Your task to perform on an android device: Open Google Chrome and click the shortcut for Amazon.com Image 0: 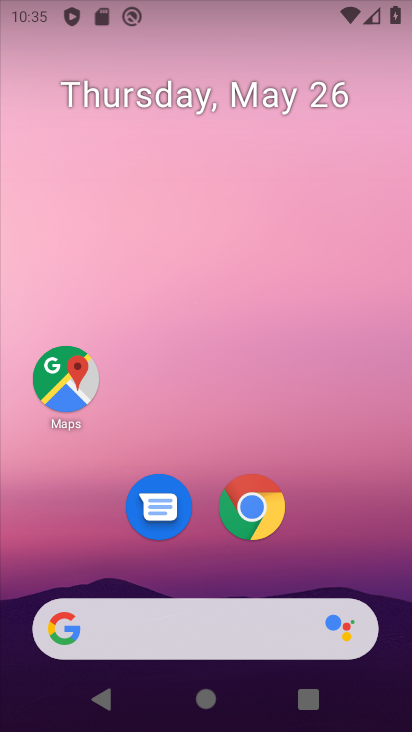
Step 0: click (164, 590)
Your task to perform on an android device: Open Google Chrome and click the shortcut for Amazon.com Image 1: 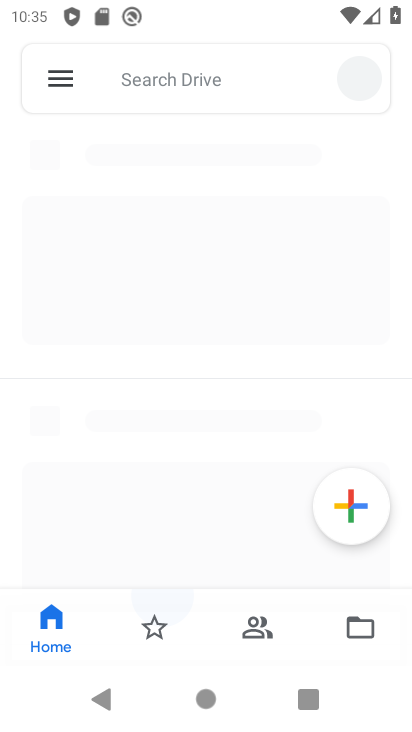
Step 1: click (164, 590)
Your task to perform on an android device: Open Google Chrome and click the shortcut for Amazon.com Image 2: 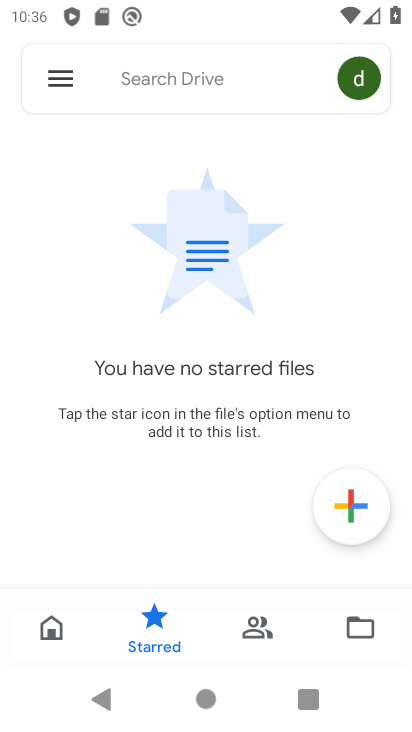
Step 2: press back button
Your task to perform on an android device: Open Google Chrome and click the shortcut for Amazon.com Image 3: 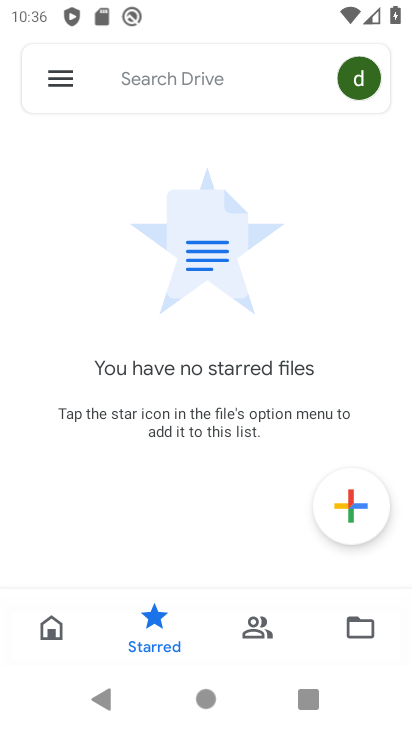
Step 3: press back button
Your task to perform on an android device: Open Google Chrome and click the shortcut for Amazon.com Image 4: 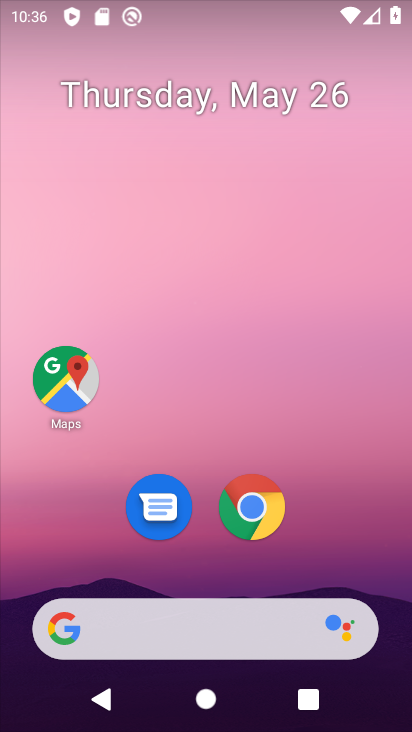
Step 4: drag from (250, 689) to (143, 195)
Your task to perform on an android device: Open Google Chrome and click the shortcut for Amazon.com Image 5: 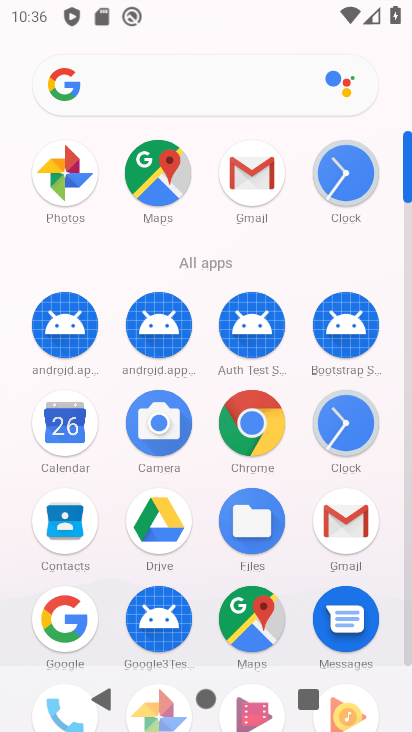
Step 5: click (243, 431)
Your task to perform on an android device: Open Google Chrome and click the shortcut for Amazon.com Image 6: 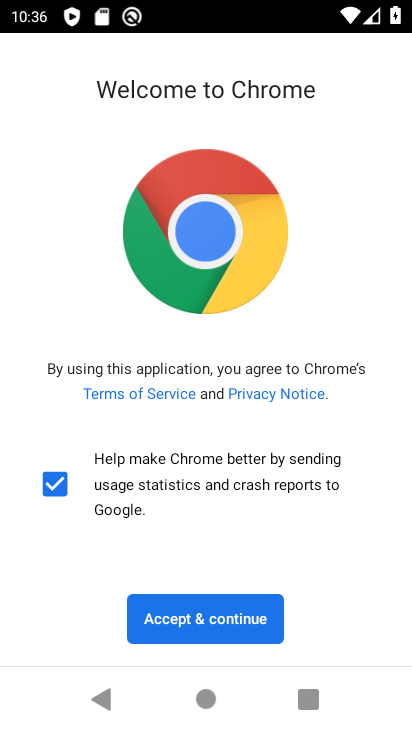
Step 6: click (203, 620)
Your task to perform on an android device: Open Google Chrome and click the shortcut for Amazon.com Image 7: 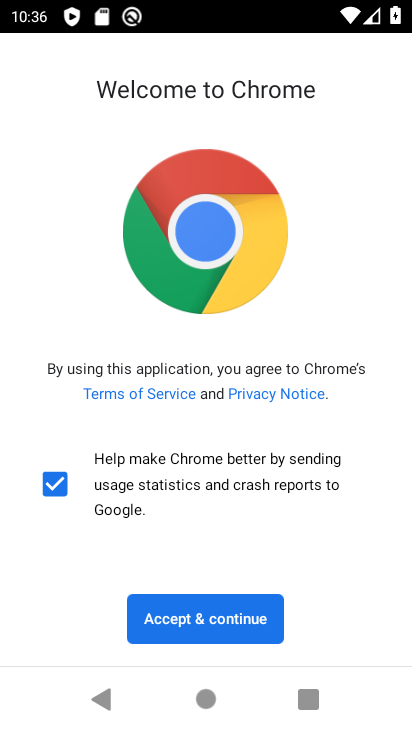
Step 7: click (204, 619)
Your task to perform on an android device: Open Google Chrome and click the shortcut for Amazon.com Image 8: 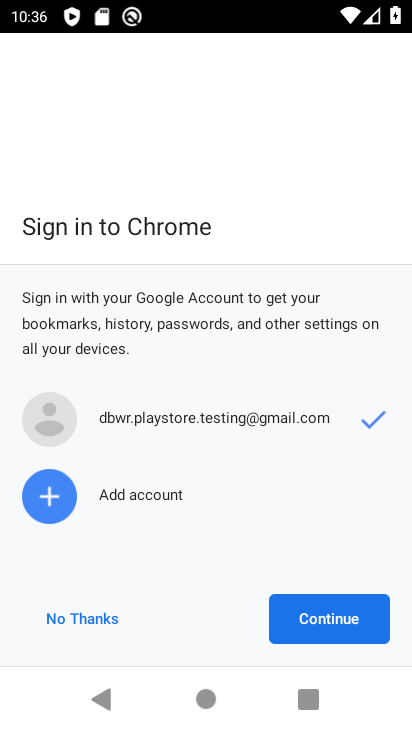
Step 8: click (211, 620)
Your task to perform on an android device: Open Google Chrome and click the shortcut for Amazon.com Image 9: 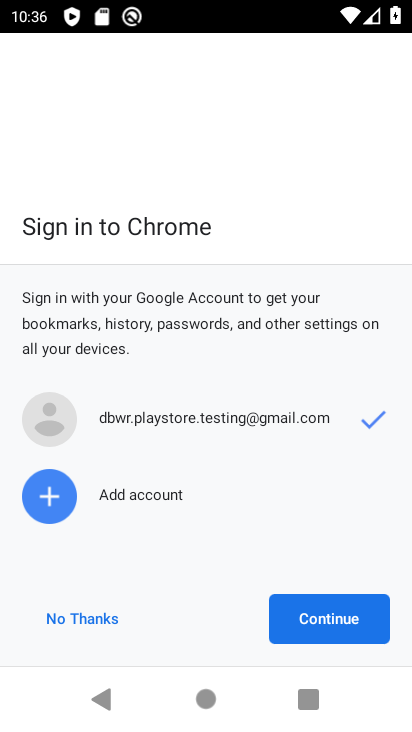
Step 9: click (211, 621)
Your task to perform on an android device: Open Google Chrome and click the shortcut for Amazon.com Image 10: 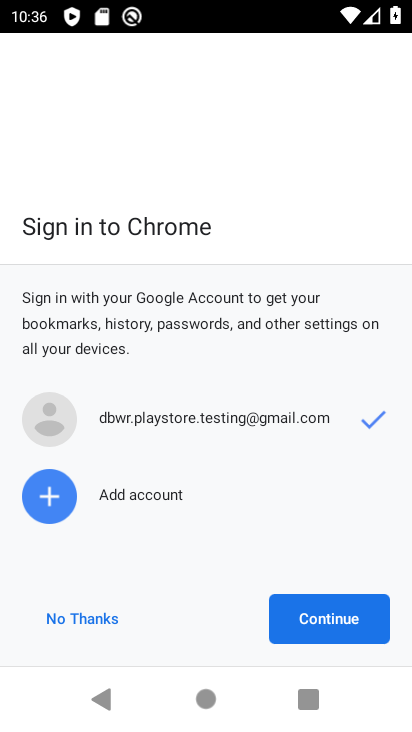
Step 10: click (331, 619)
Your task to perform on an android device: Open Google Chrome and click the shortcut for Amazon.com Image 11: 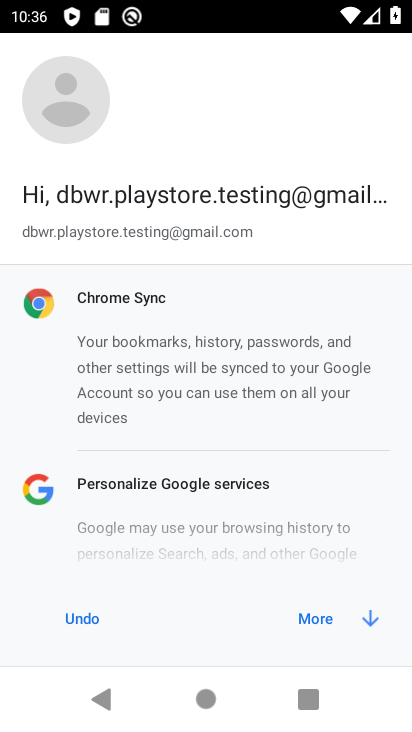
Step 11: click (332, 619)
Your task to perform on an android device: Open Google Chrome and click the shortcut for Amazon.com Image 12: 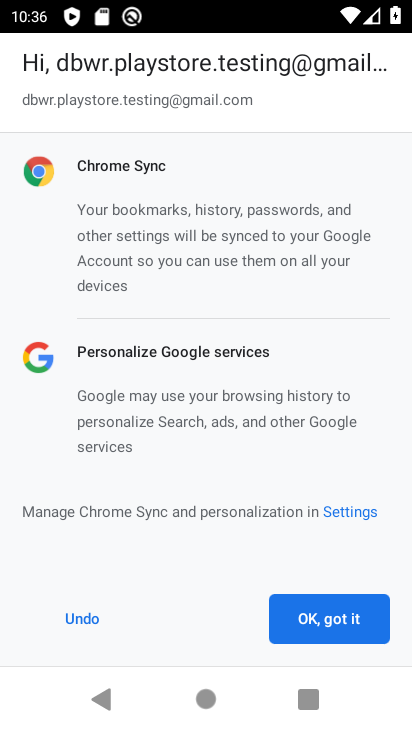
Step 12: click (343, 616)
Your task to perform on an android device: Open Google Chrome and click the shortcut for Amazon.com Image 13: 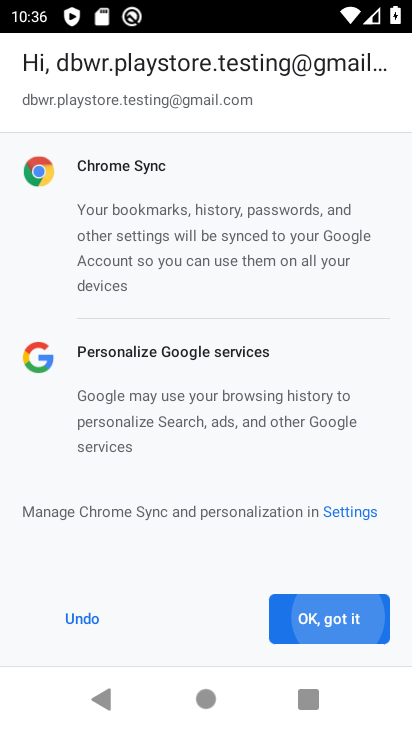
Step 13: click (343, 617)
Your task to perform on an android device: Open Google Chrome and click the shortcut for Amazon.com Image 14: 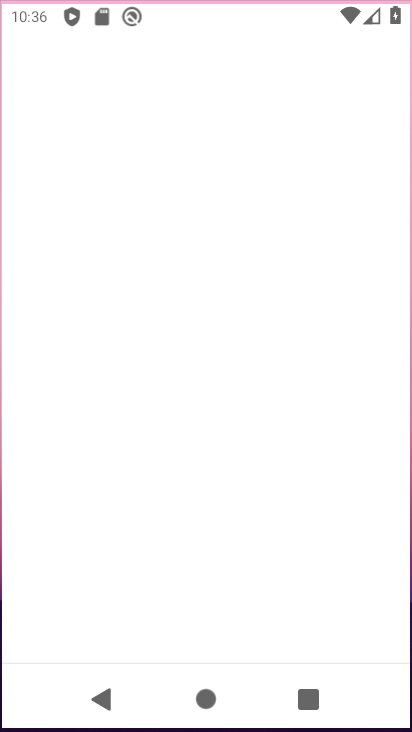
Step 14: click (345, 619)
Your task to perform on an android device: Open Google Chrome and click the shortcut for Amazon.com Image 15: 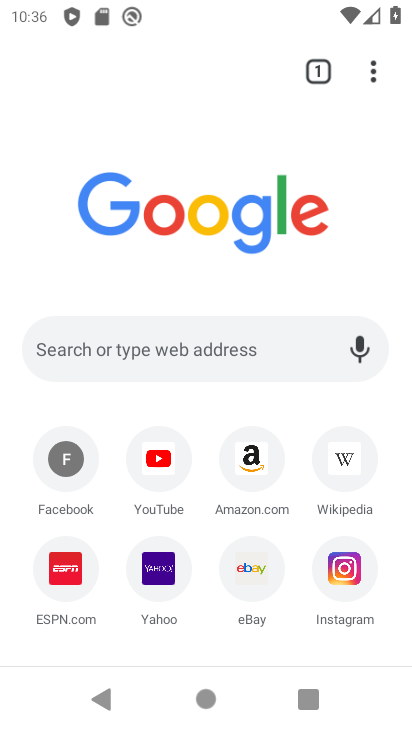
Step 15: click (247, 457)
Your task to perform on an android device: Open Google Chrome and click the shortcut for Amazon.com Image 16: 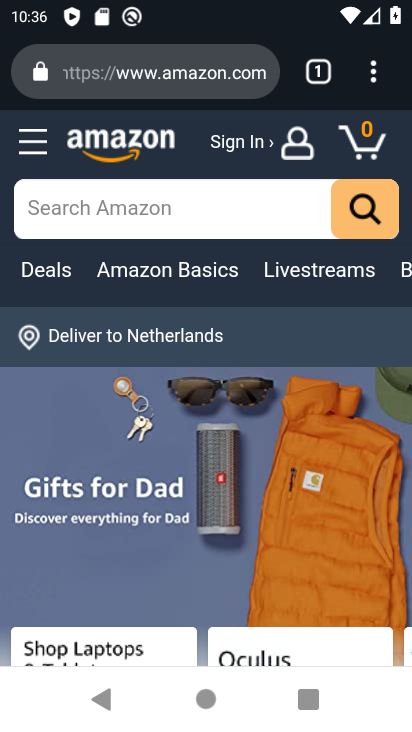
Step 16: task complete